Your task to perform on an android device: toggle airplane mode Image 0: 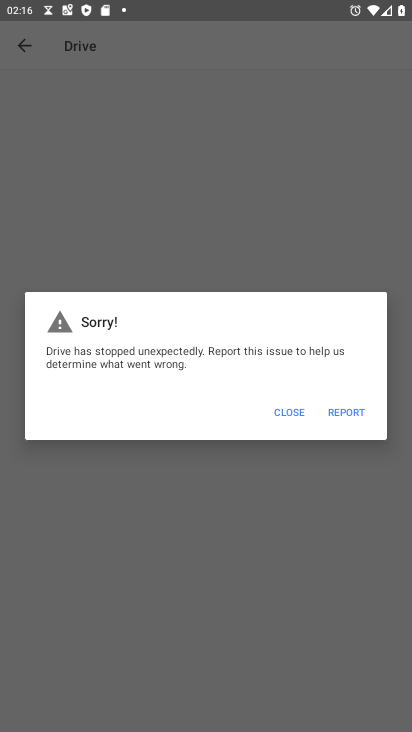
Step 0: press home button
Your task to perform on an android device: toggle airplane mode Image 1: 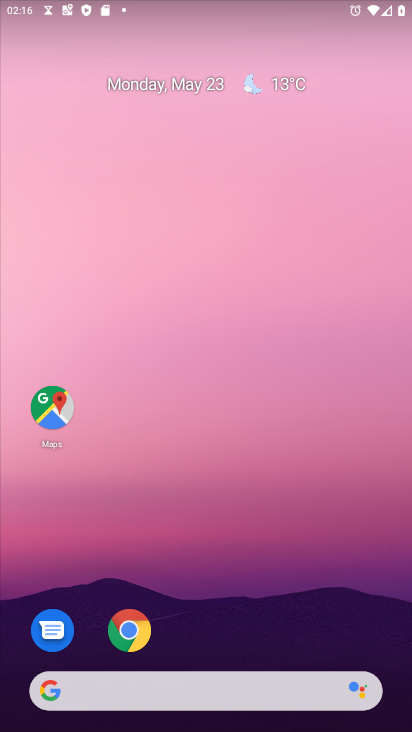
Step 1: drag from (291, 470) to (178, 117)
Your task to perform on an android device: toggle airplane mode Image 2: 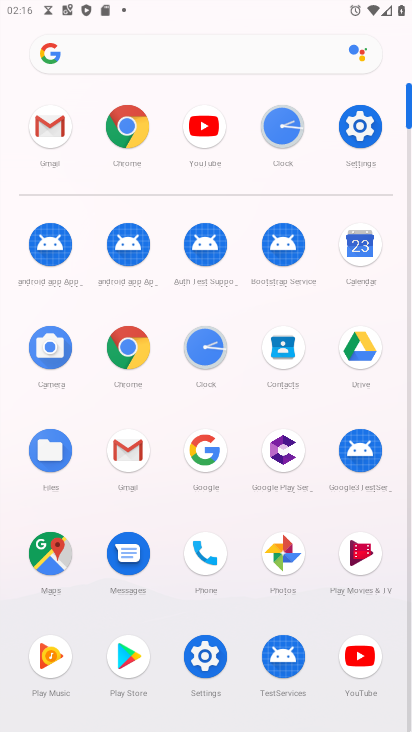
Step 2: click (361, 132)
Your task to perform on an android device: toggle airplane mode Image 3: 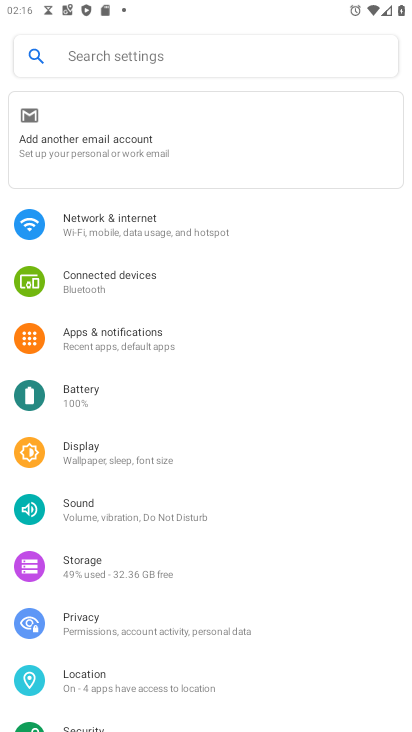
Step 3: click (193, 237)
Your task to perform on an android device: toggle airplane mode Image 4: 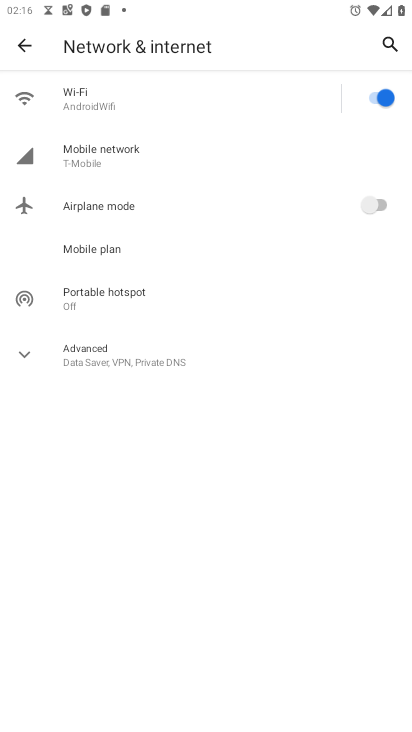
Step 4: click (373, 199)
Your task to perform on an android device: toggle airplane mode Image 5: 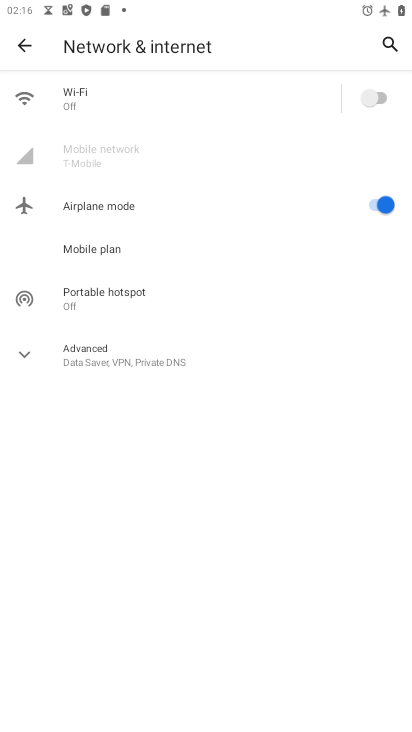
Step 5: task complete